Your task to perform on an android device: turn off improve location accuracy Image 0: 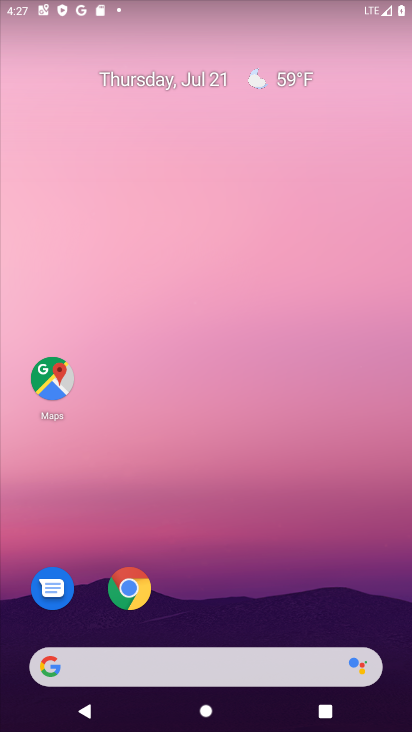
Step 0: drag from (236, 724) to (234, 36)
Your task to perform on an android device: turn off improve location accuracy Image 1: 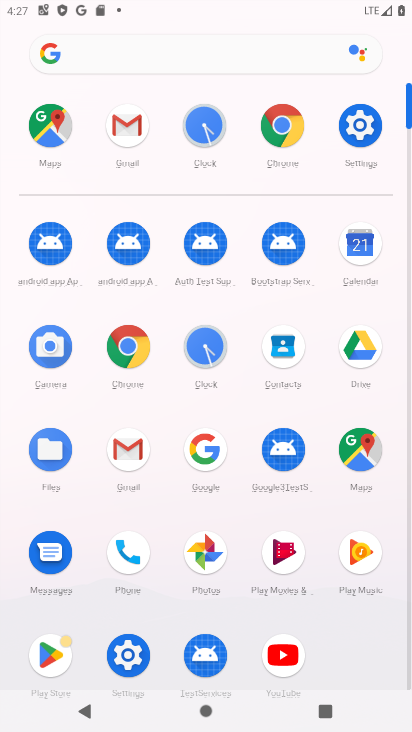
Step 1: click (367, 123)
Your task to perform on an android device: turn off improve location accuracy Image 2: 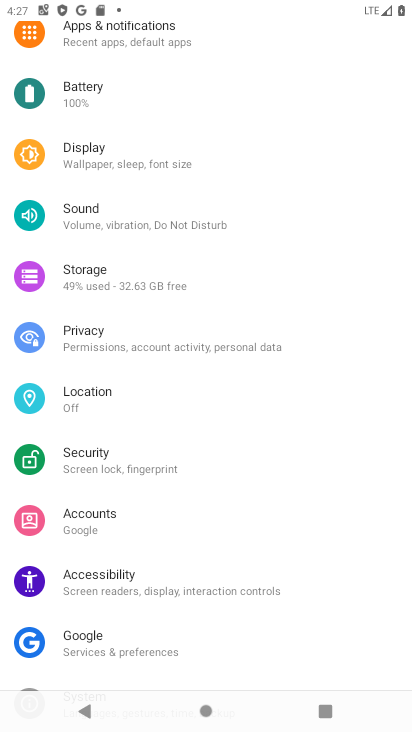
Step 2: click (77, 393)
Your task to perform on an android device: turn off improve location accuracy Image 3: 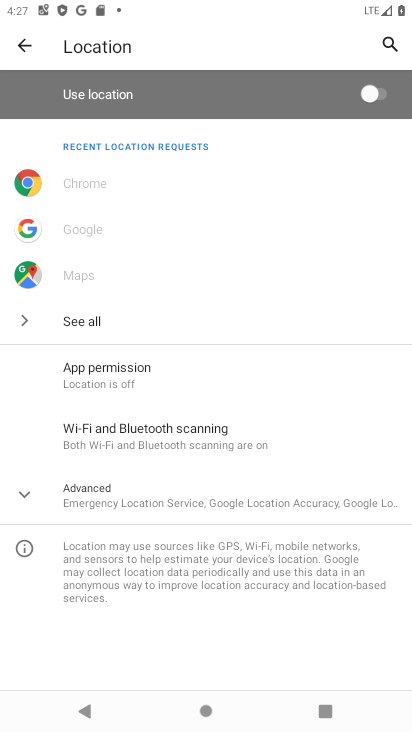
Step 3: click (108, 492)
Your task to perform on an android device: turn off improve location accuracy Image 4: 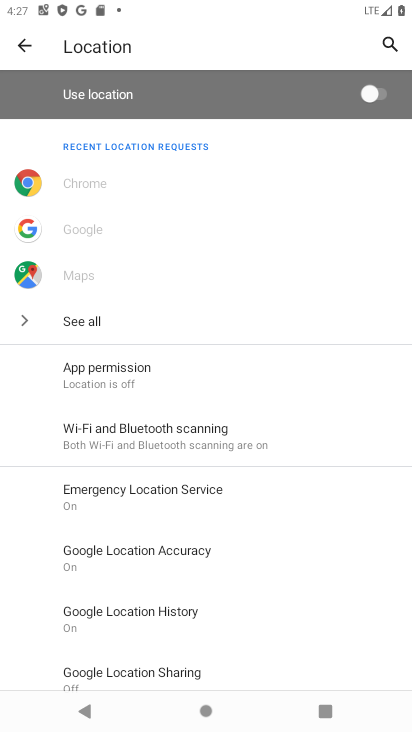
Step 4: click (181, 548)
Your task to perform on an android device: turn off improve location accuracy Image 5: 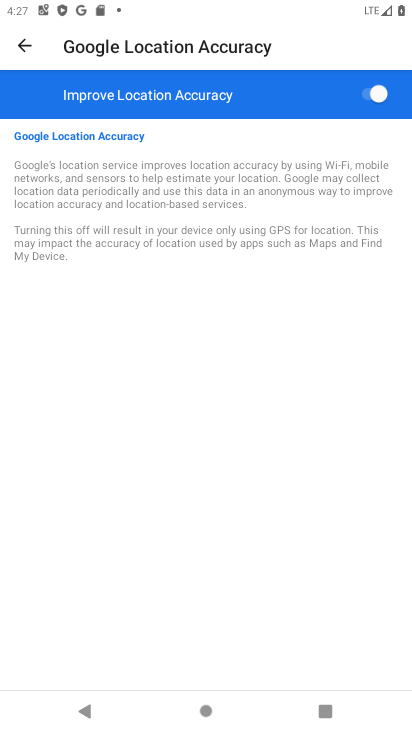
Step 5: click (377, 90)
Your task to perform on an android device: turn off improve location accuracy Image 6: 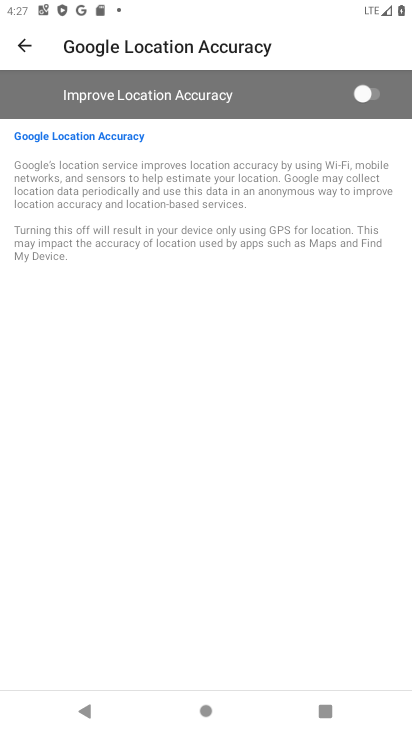
Step 6: task complete